Your task to perform on an android device: toggle sleep mode Image 0: 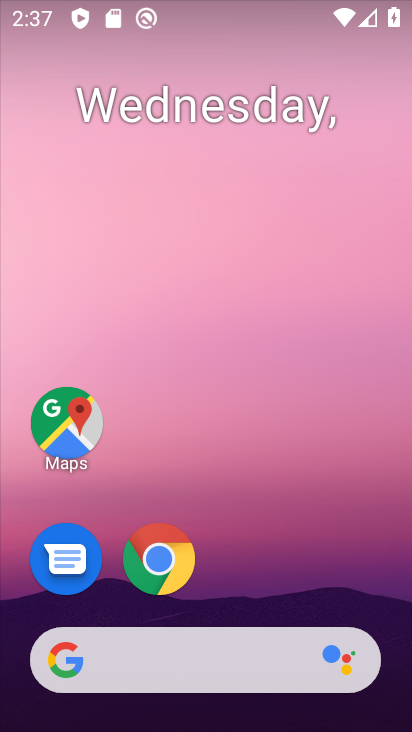
Step 0: drag from (257, 434) to (300, 13)
Your task to perform on an android device: toggle sleep mode Image 1: 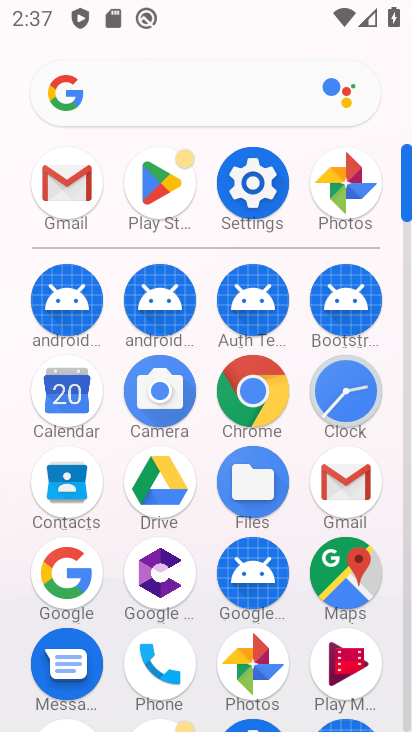
Step 1: click (245, 191)
Your task to perform on an android device: toggle sleep mode Image 2: 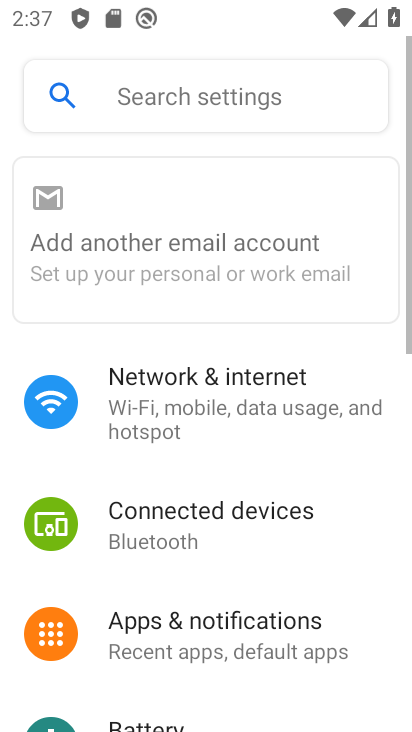
Step 2: click (190, 103)
Your task to perform on an android device: toggle sleep mode Image 3: 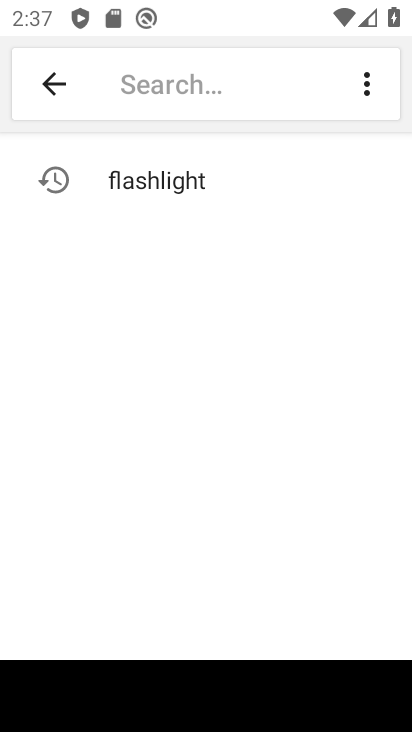
Step 3: type "sleep mode"
Your task to perform on an android device: toggle sleep mode Image 4: 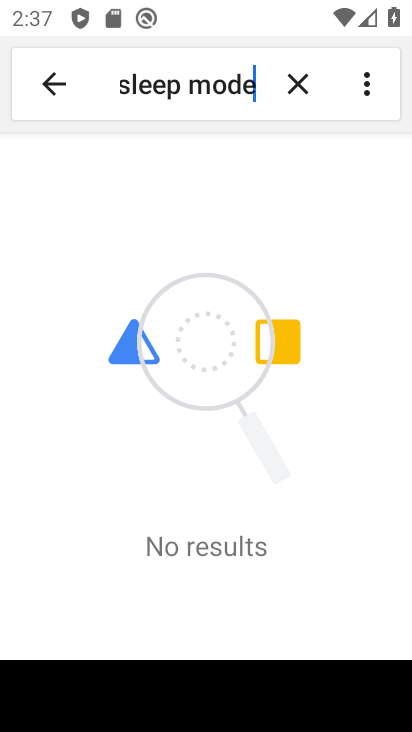
Step 4: task complete